Your task to perform on an android device: set an alarm Image 0: 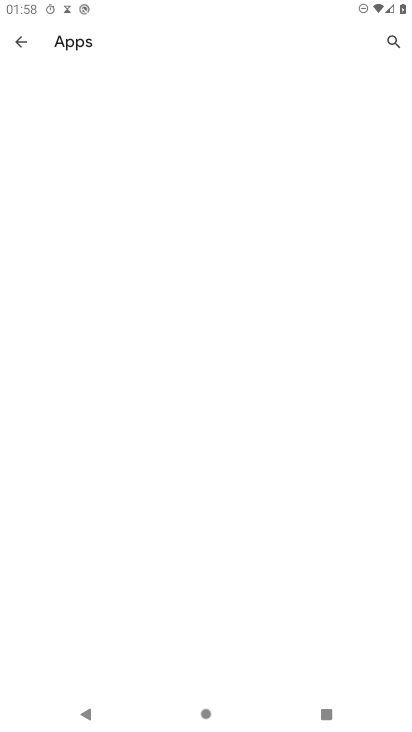
Step 0: press home button
Your task to perform on an android device: set an alarm Image 1: 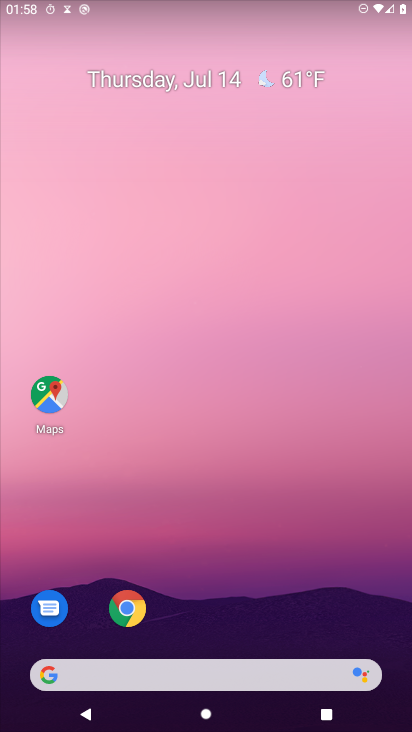
Step 1: drag from (242, 558) to (360, 527)
Your task to perform on an android device: set an alarm Image 2: 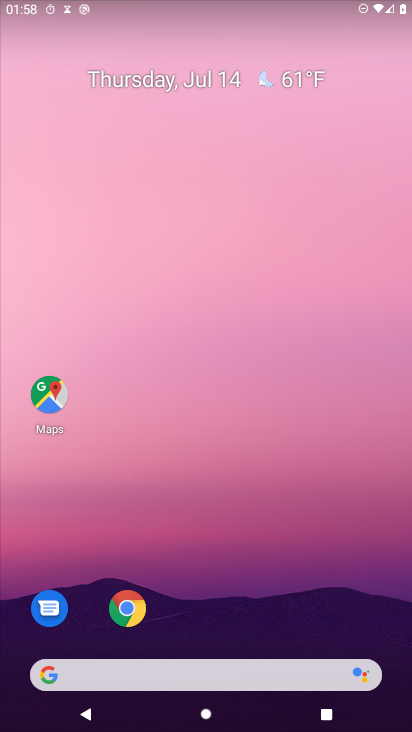
Step 2: drag from (191, 230) to (327, 410)
Your task to perform on an android device: set an alarm Image 3: 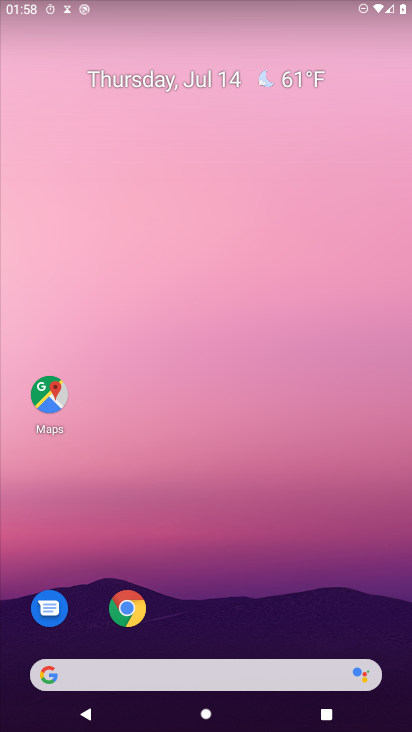
Step 3: drag from (231, 624) to (252, 6)
Your task to perform on an android device: set an alarm Image 4: 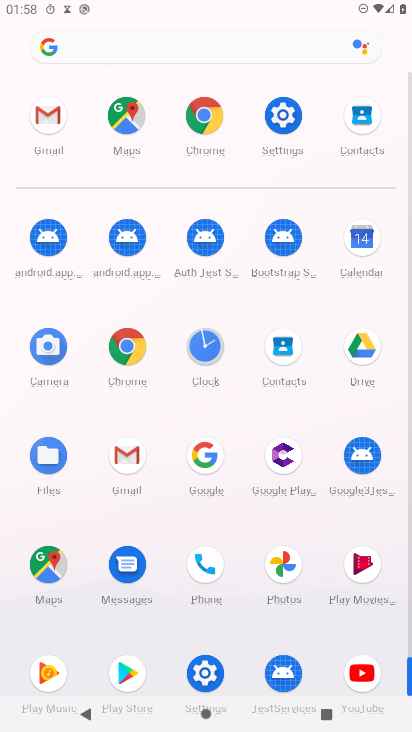
Step 4: click (205, 350)
Your task to perform on an android device: set an alarm Image 5: 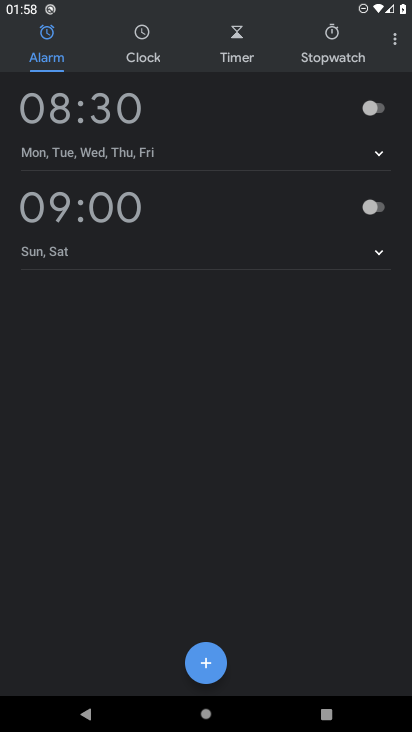
Step 5: click (206, 663)
Your task to perform on an android device: set an alarm Image 6: 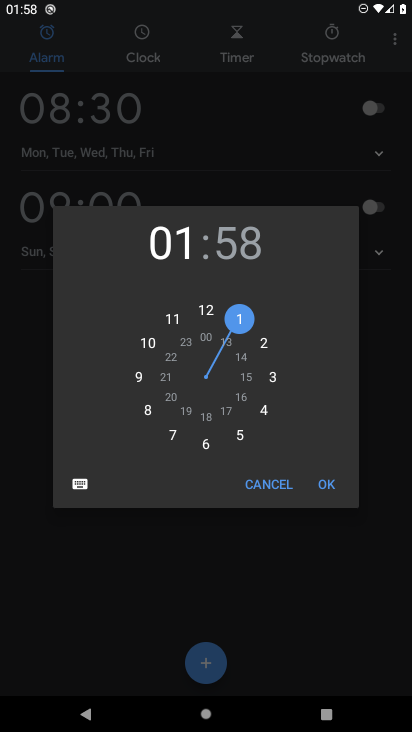
Step 6: click (211, 402)
Your task to perform on an android device: set an alarm Image 7: 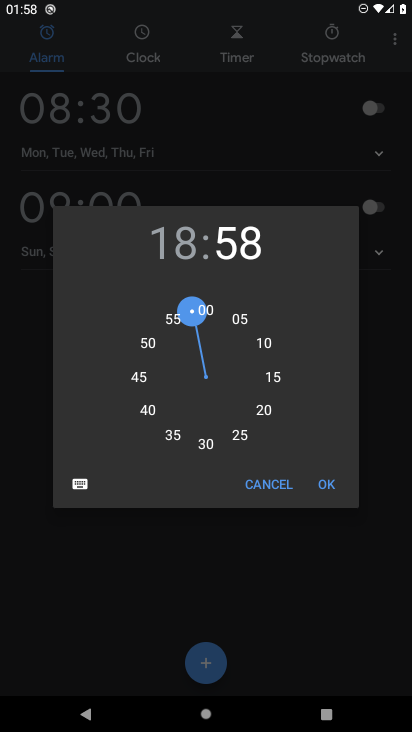
Step 7: click (323, 487)
Your task to perform on an android device: set an alarm Image 8: 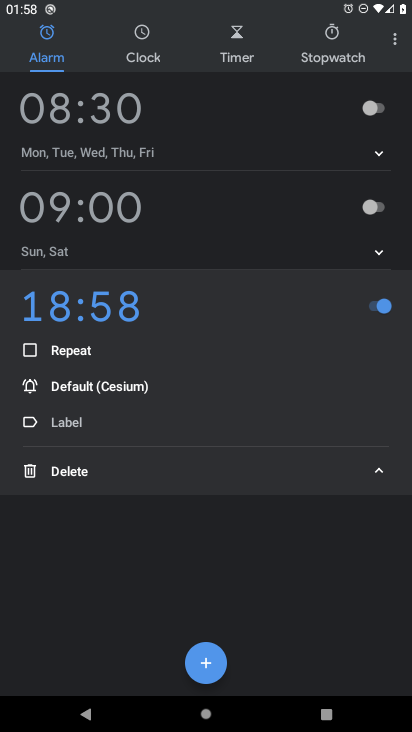
Step 8: task complete